Your task to perform on an android device: Do I have any events tomorrow? Image 0: 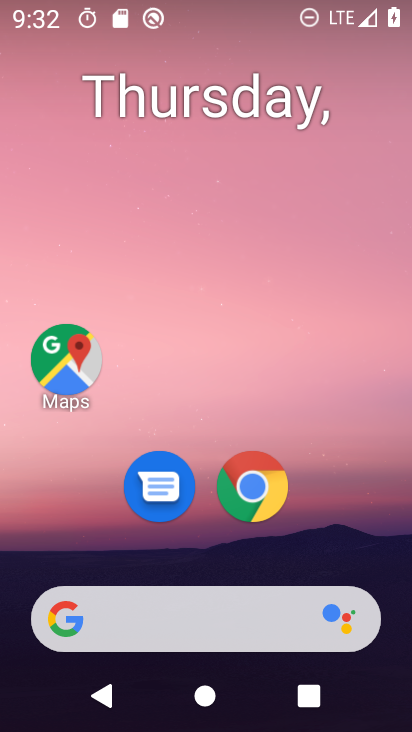
Step 0: drag from (174, 559) to (244, 10)
Your task to perform on an android device: Do I have any events tomorrow? Image 1: 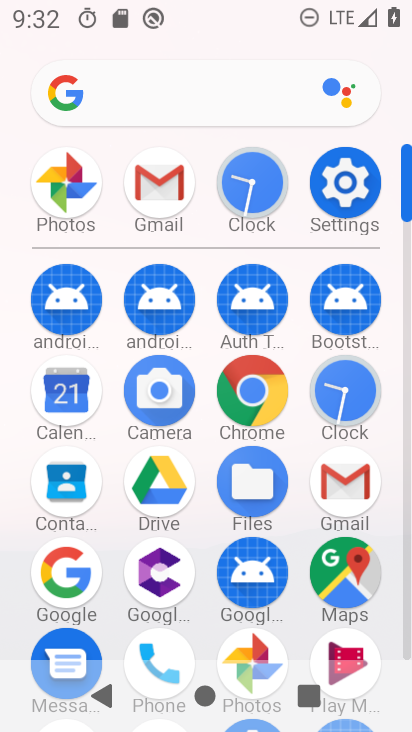
Step 1: click (58, 402)
Your task to perform on an android device: Do I have any events tomorrow? Image 2: 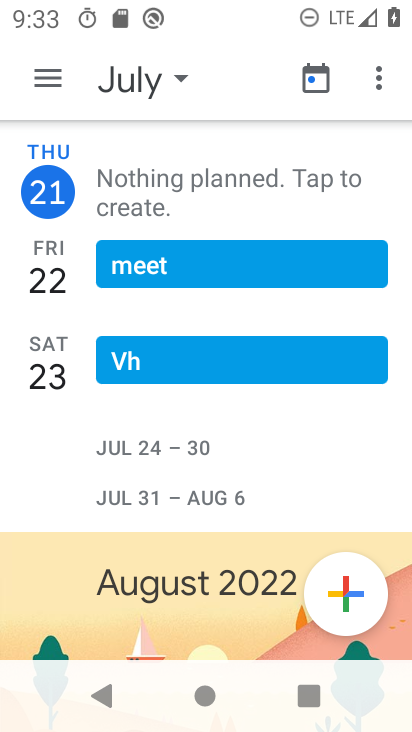
Step 2: task complete